Your task to perform on an android device: Go to Amazon Image 0: 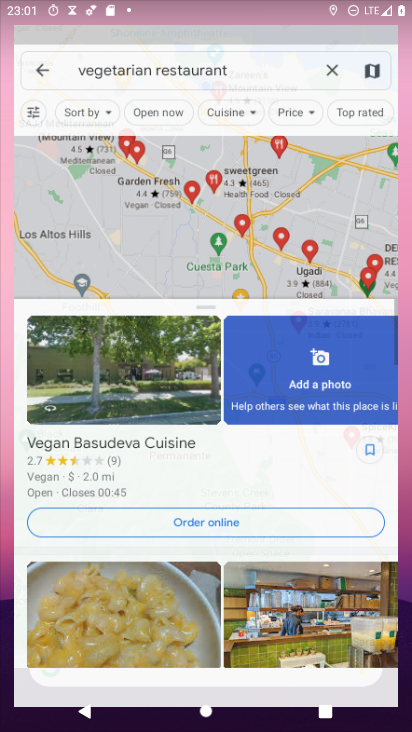
Step 0: drag from (239, 592) to (240, 77)
Your task to perform on an android device: Go to Amazon Image 1: 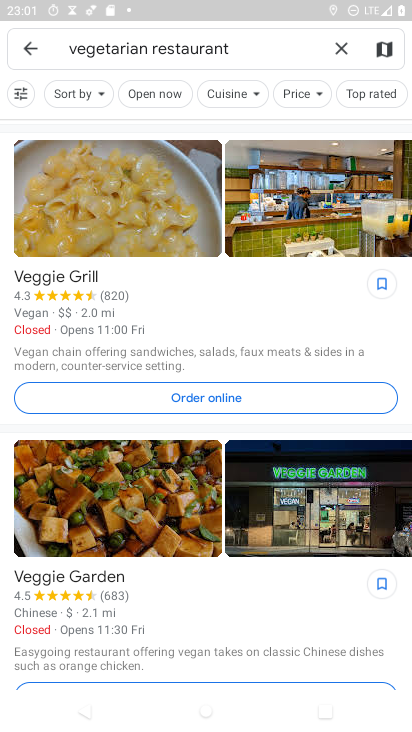
Step 1: press back button
Your task to perform on an android device: Go to Amazon Image 2: 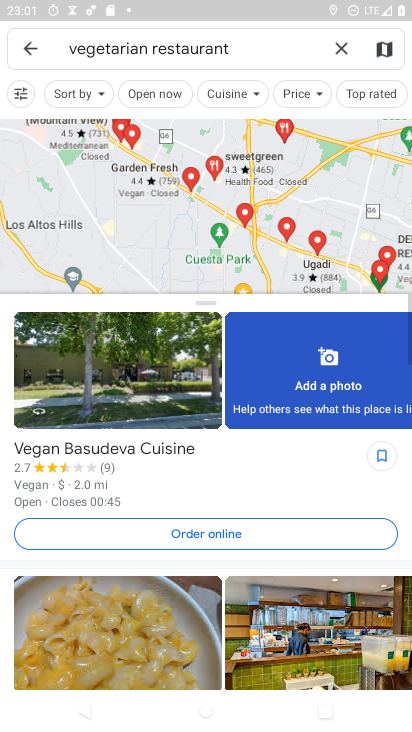
Step 2: press back button
Your task to perform on an android device: Go to Amazon Image 3: 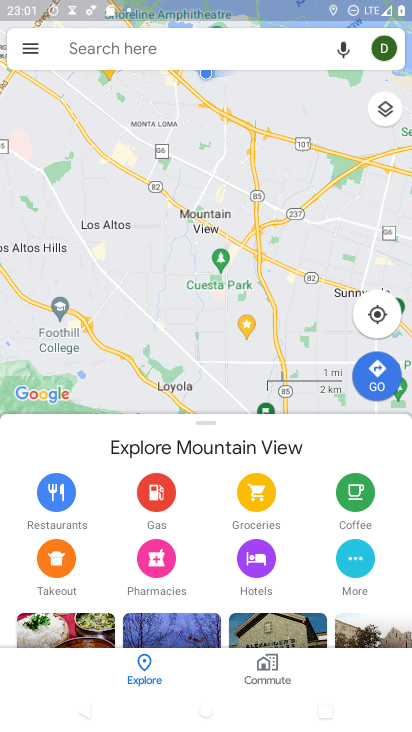
Step 3: press back button
Your task to perform on an android device: Go to Amazon Image 4: 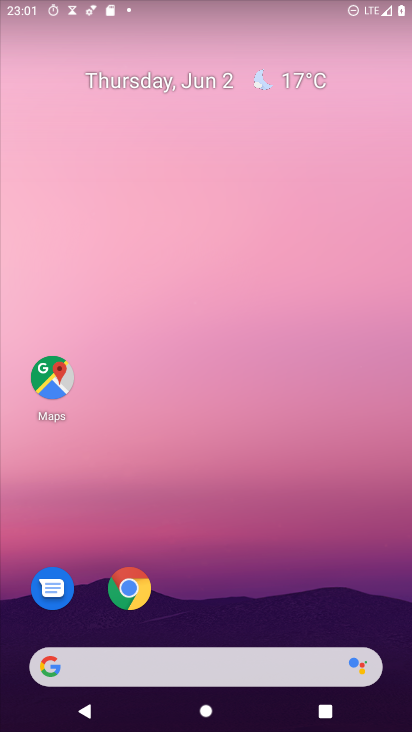
Step 4: click (128, 586)
Your task to perform on an android device: Go to Amazon Image 5: 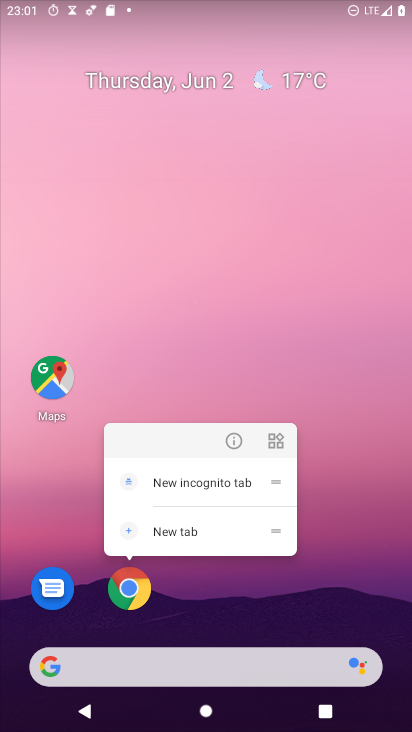
Step 5: click (125, 587)
Your task to perform on an android device: Go to Amazon Image 6: 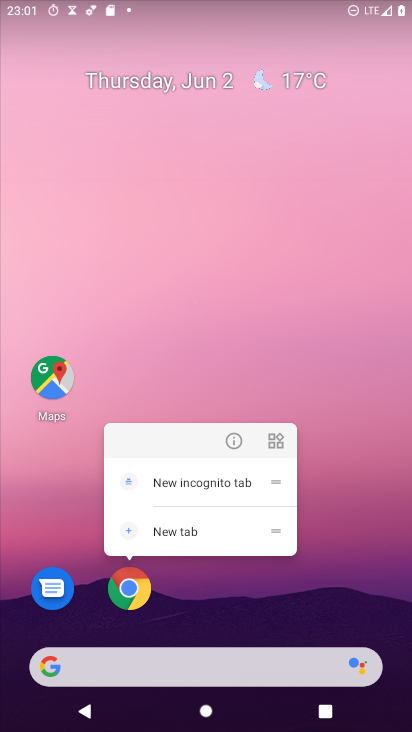
Step 6: click (130, 587)
Your task to perform on an android device: Go to Amazon Image 7: 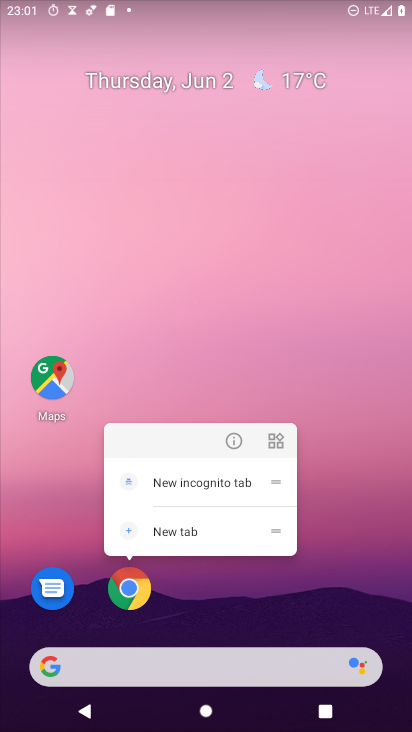
Step 7: click (131, 592)
Your task to perform on an android device: Go to Amazon Image 8: 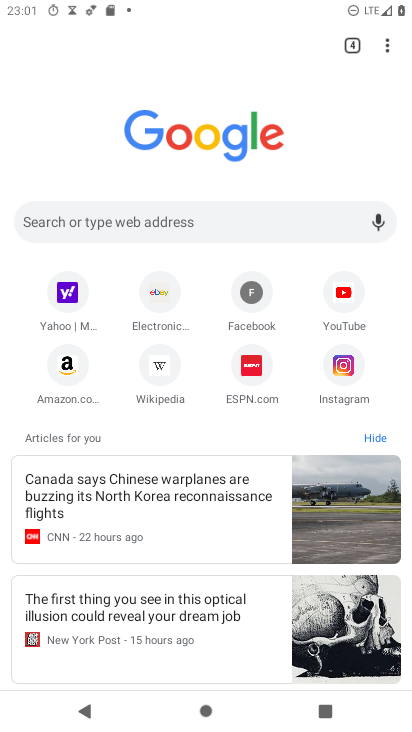
Step 8: click (71, 357)
Your task to perform on an android device: Go to Amazon Image 9: 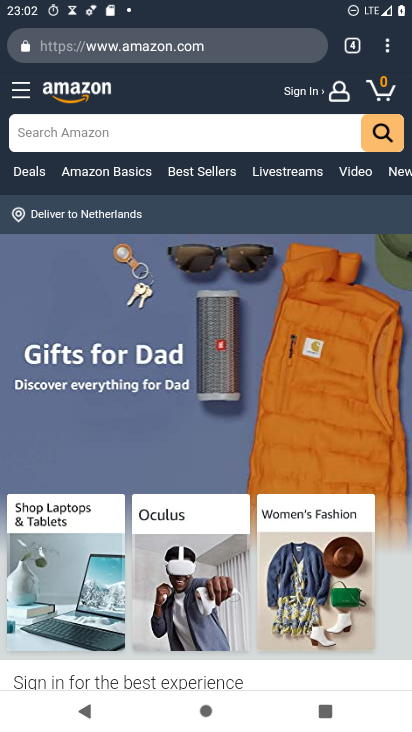
Step 9: task complete